Your task to perform on an android device: turn on javascript in the chrome app Image 0: 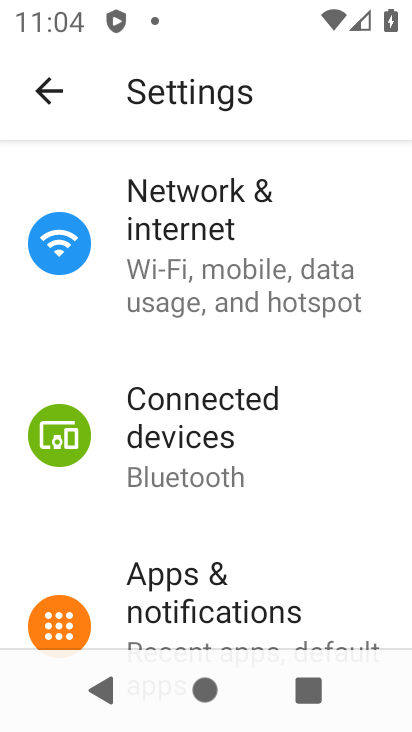
Step 0: press home button
Your task to perform on an android device: turn on javascript in the chrome app Image 1: 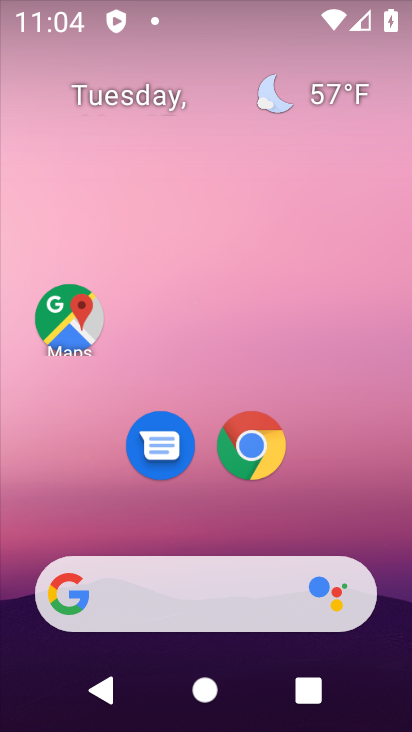
Step 1: drag from (370, 525) to (354, 141)
Your task to perform on an android device: turn on javascript in the chrome app Image 2: 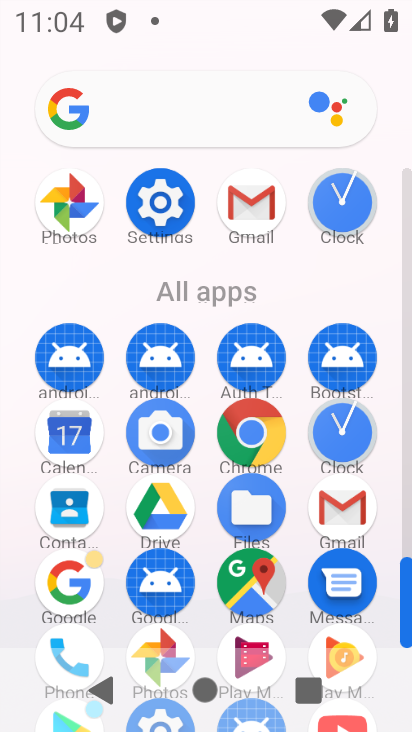
Step 2: click (273, 440)
Your task to perform on an android device: turn on javascript in the chrome app Image 3: 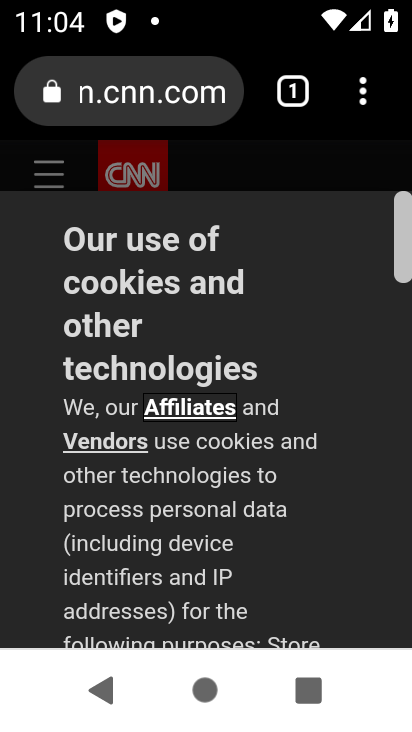
Step 3: click (366, 99)
Your task to perform on an android device: turn on javascript in the chrome app Image 4: 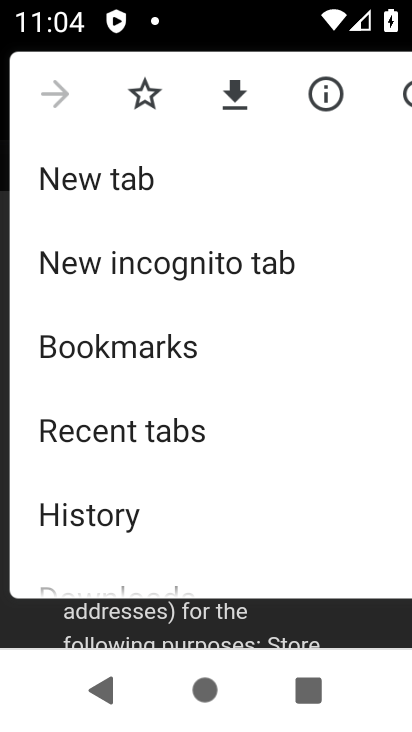
Step 4: drag from (281, 468) to (283, 323)
Your task to perform on an android device: turn on javascript in the chrome app Image 5: 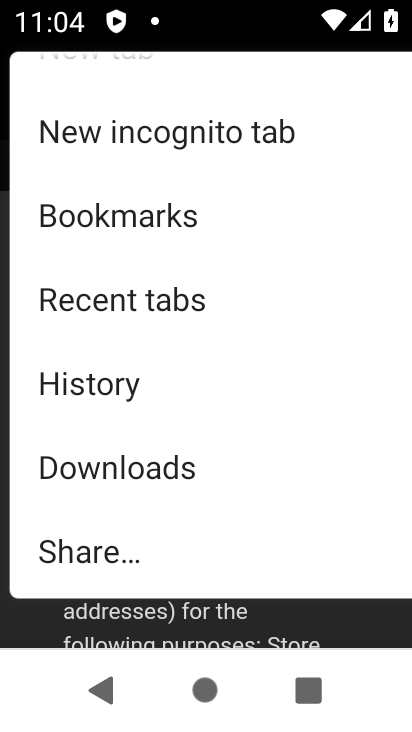
Step 5: drag from (268, 482) to (277, 359)
Your task to perform on an android device: turn on javascript in the chrome app Image 6: 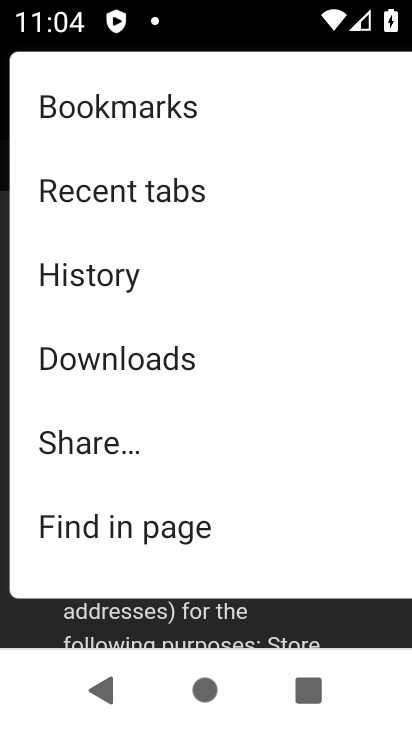
Step 6: drag from (273, 491) to (277, 391)
Your task to perform on an android device: turn on javascript in the chrome app Image 7: 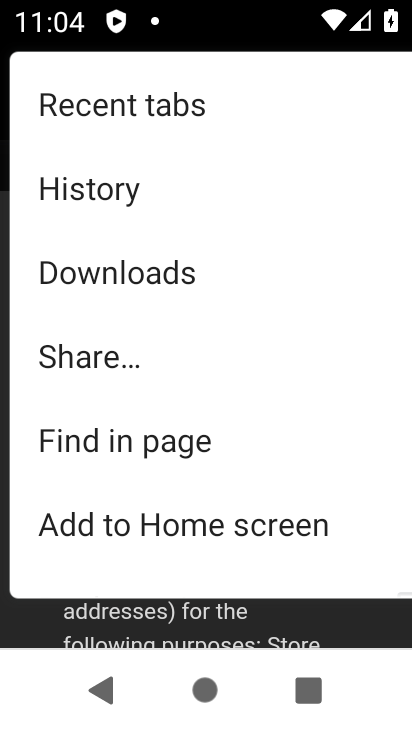
Step 7: drag from (285, 473) to (300, 382)
Your task to perform on an android device: turn on javascript in the chrome app Image 8: 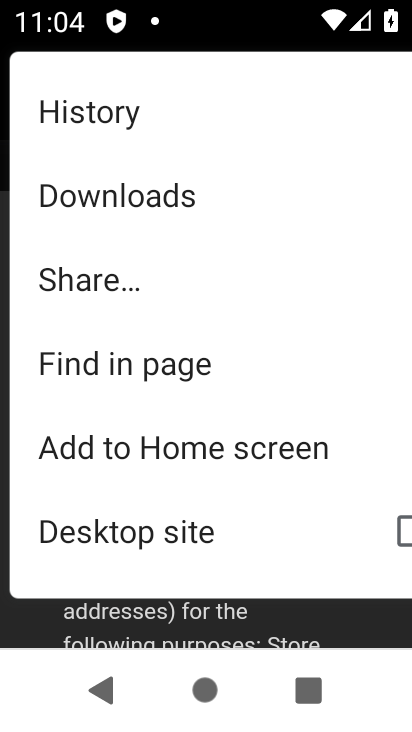
Step 8: drag from (308, 514) to (313, 380)
Your task to perform on an android device: turn on javascript in the chrome app Image 9: 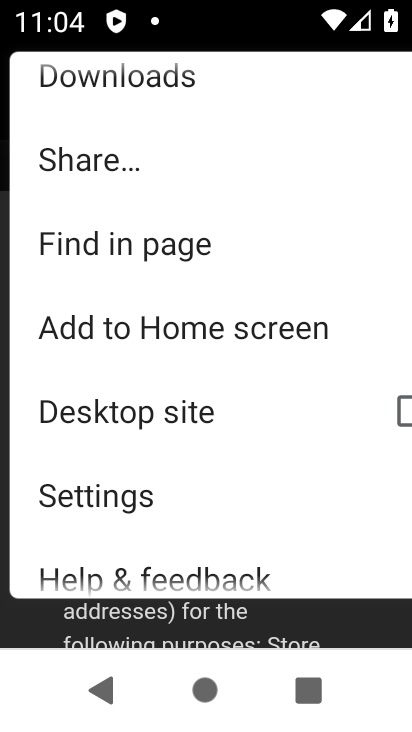
Step 9: drag from (313, 508) to (315, 419)
Your task to perform on an android device: turn on javascript in the chrome app Image 10: 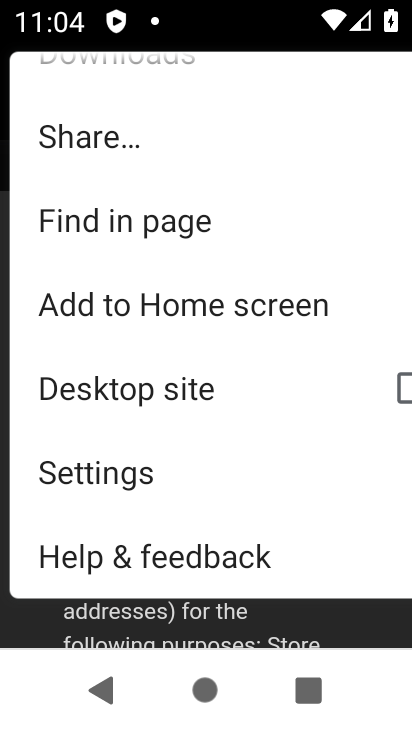
Step 10: click (164, 474)
Your task to perform on an android device: turn on javascript in the chrome app Image 11: 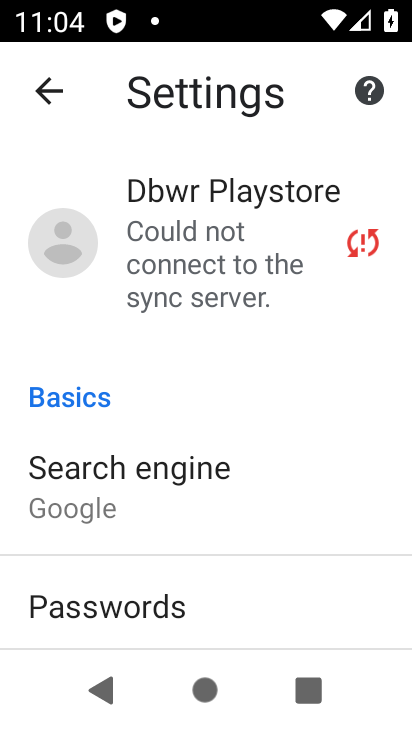
Step 11: drag from (254, 527) to (281, 377)
Your task to perform on an android device: turn on javascript in the chrome app Image 12: 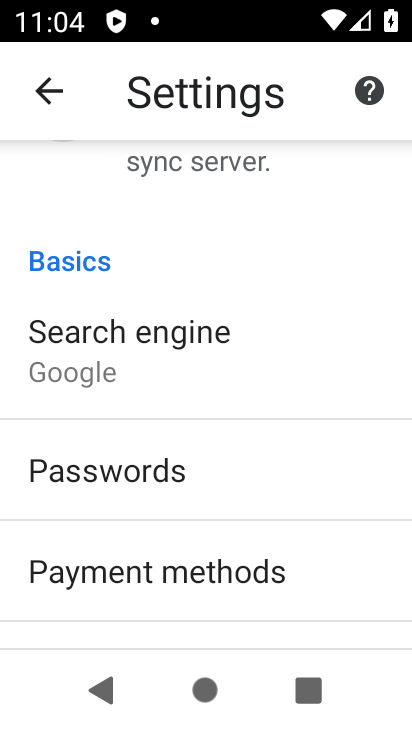
Step 12: drag from (269, 540) to (267, 437)
Your task to perform on an android device: turn on javascript in the chrome app Image 13: 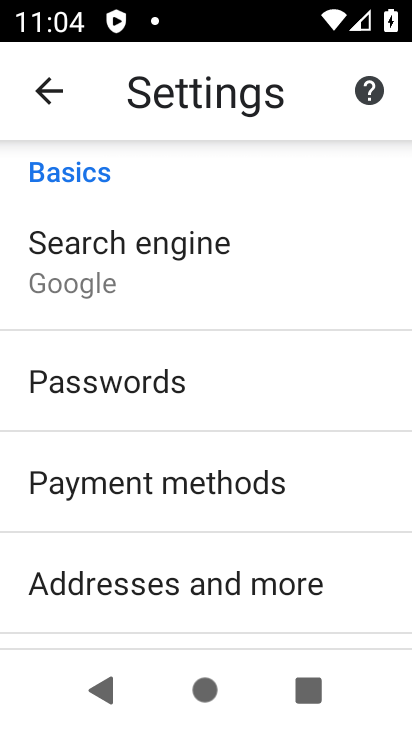
Step 13: drag from (272, 556) to (285, 430)
Your task to perform on an android device: turn on javascript in the chrome app Image 14: 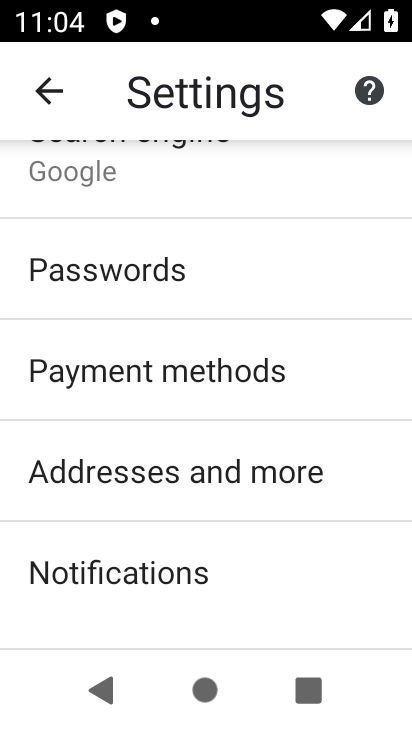
Step 14: drag from (295, 577) to (302, 441)
Your task to perform on an android device: turn on javascript in the chrome app Image 15: 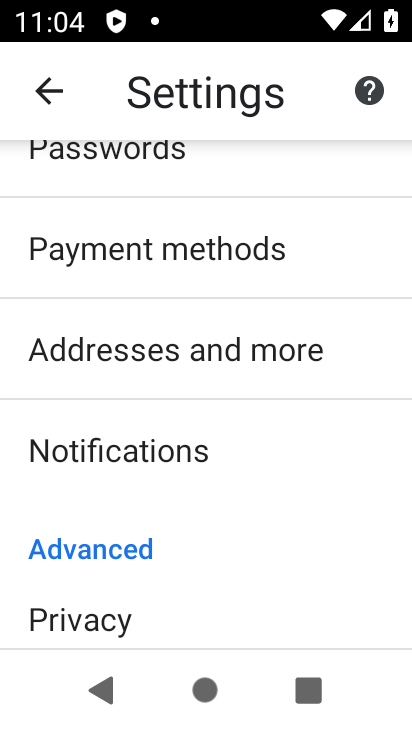
Step 15: drag from (288, 600) to (301, 503)
Your task to perform on an android device: turn on javascript in the chrome app Image 16: 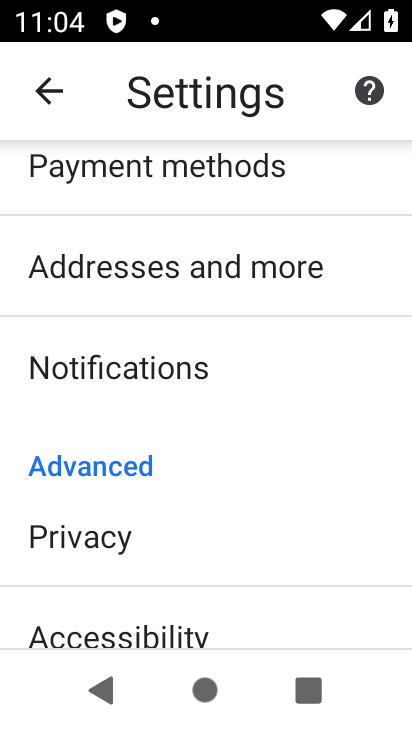
Step 16: drag from (277, 595) to (279, 499)
Your task to perform on an android device: turn on javascript in the chrome app Image 17: 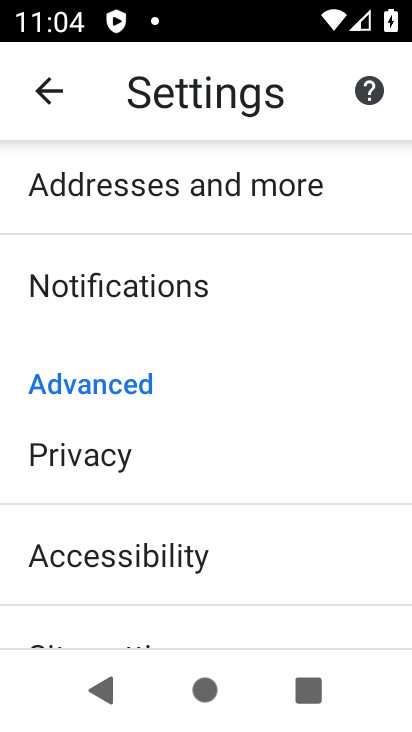
Step 17: drag from (278, 600) to (288, 439)
Your task to perform on an android device: turn on javascript in the chrome app Image 18: 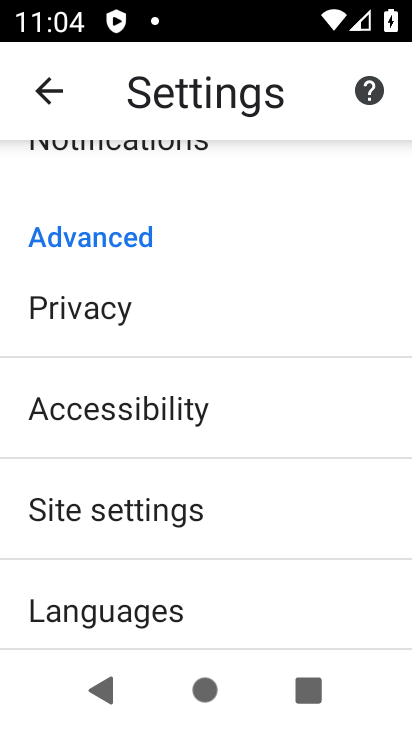
Step 18: click (269, 516)
Your task to perform on an android device: turn on javascript in the chrome app Image 19: 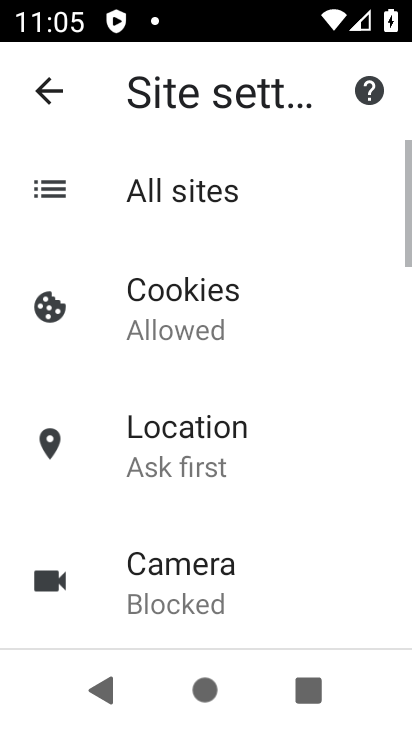
Step 19: drag from (290, 549) to (296, 440)
Your task to perform on an android device: turn on javascript in the chrome app Image 20: 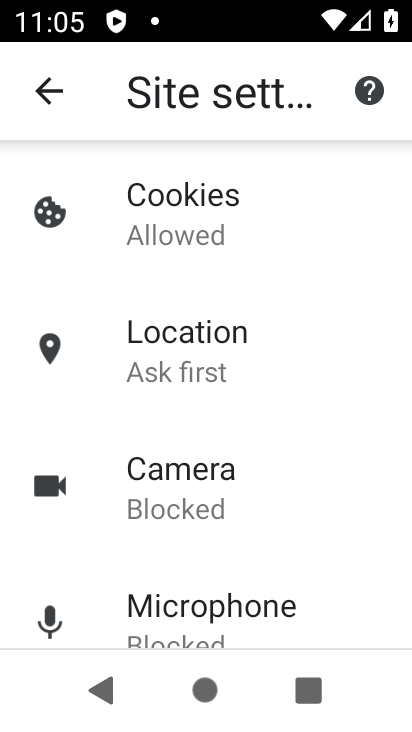
Step 20: drag from (324, 587) to (319, 472)
Your task to perform on an android device: turn on javascript in the chrome app Image 21: 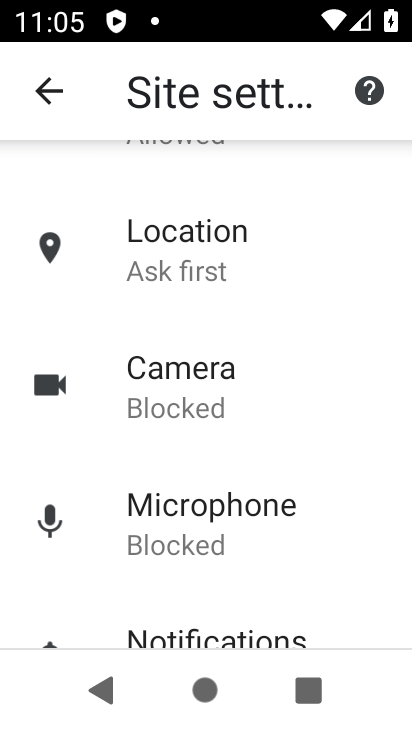
Step 21: drag from (322, 602) to (339, 533)
Your task to perform on an android device: turn on javascript in the chrome app Image 22: 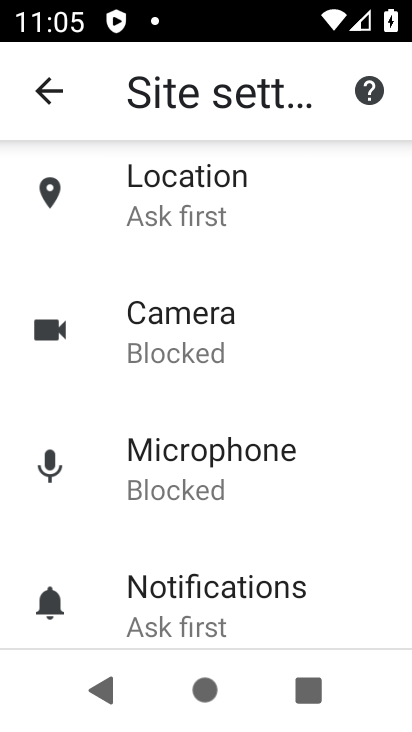
Step 22: drag from (362, 559) to (339, 396)
Your task to perform on an android device: turn on javascript in the chrome app Image 23: 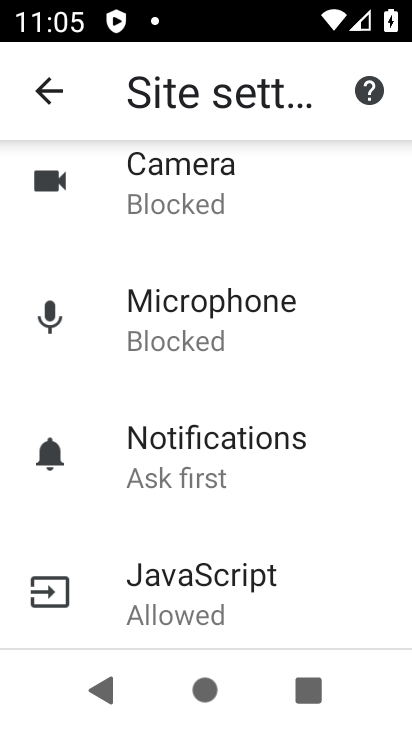
Step 23: drag from (332, 584) to (335, 495)
Your task to perform on an android device: turn on javascript in the chrome app Image 24: 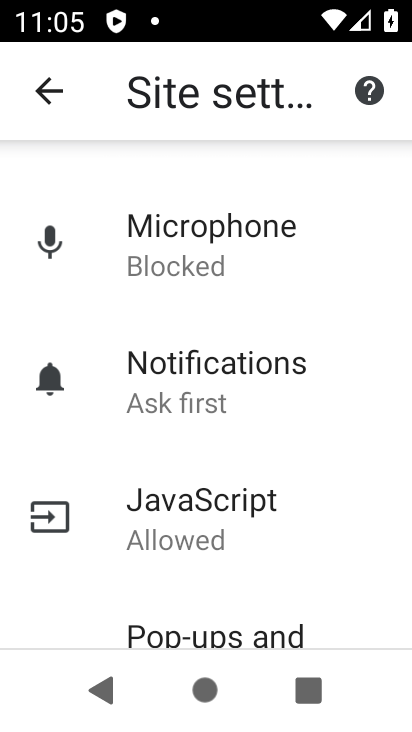
Step 24: click (204, 520)
Your task to perform on an android device: turn on javascript in the chrome app Image 25: 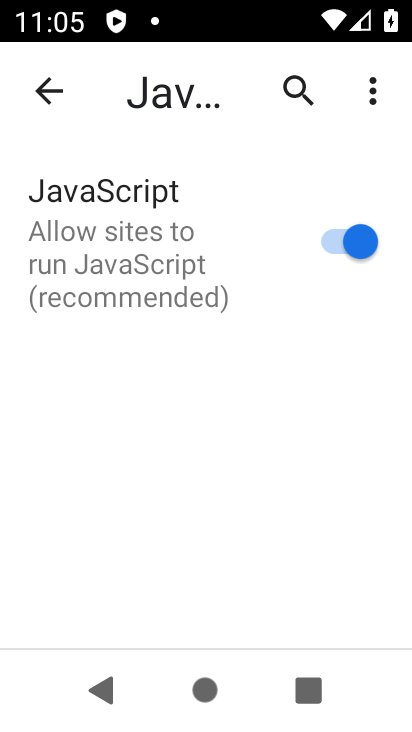
Step 25: task complete